Your task to perform on an android device: Go to settings Image 0: 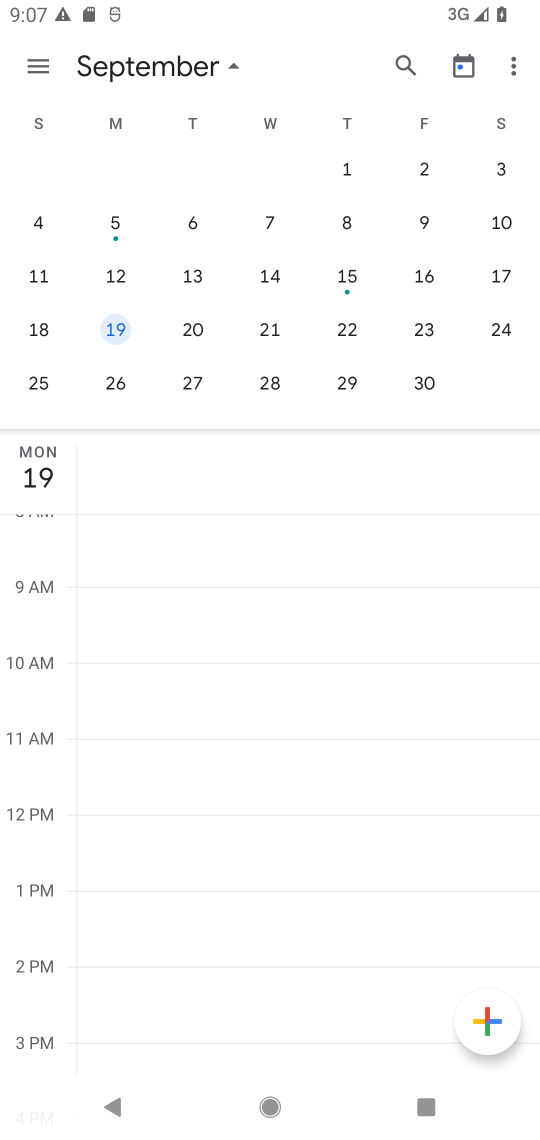
Step 0: press home button
Your task to perform on an android device: Go to settings Image 1: 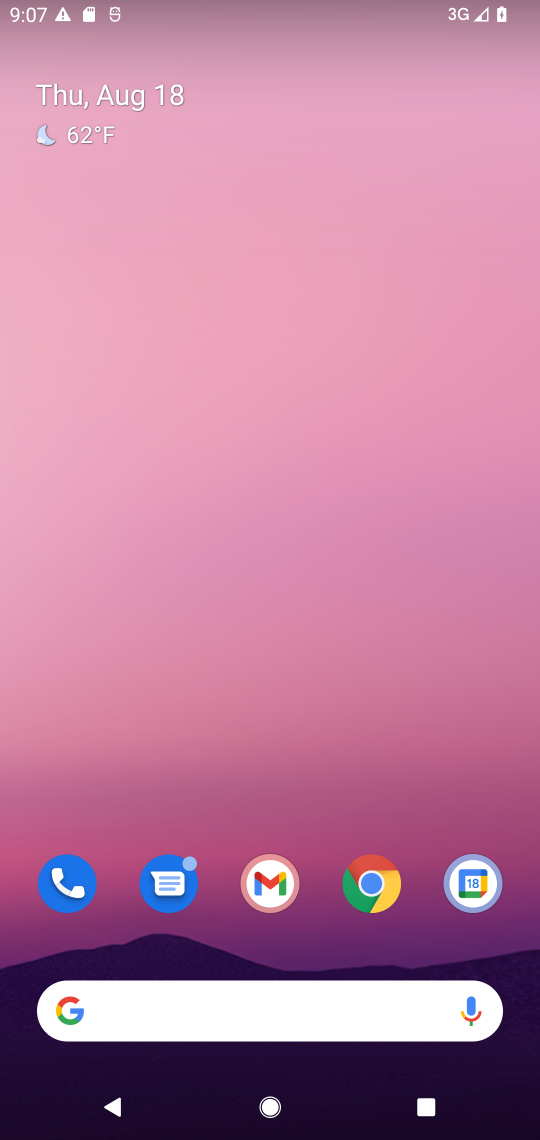
Step 1: drag from (64, 1075) to (301, 325)
Your task to perform on an android device: Go to settings Image 2: 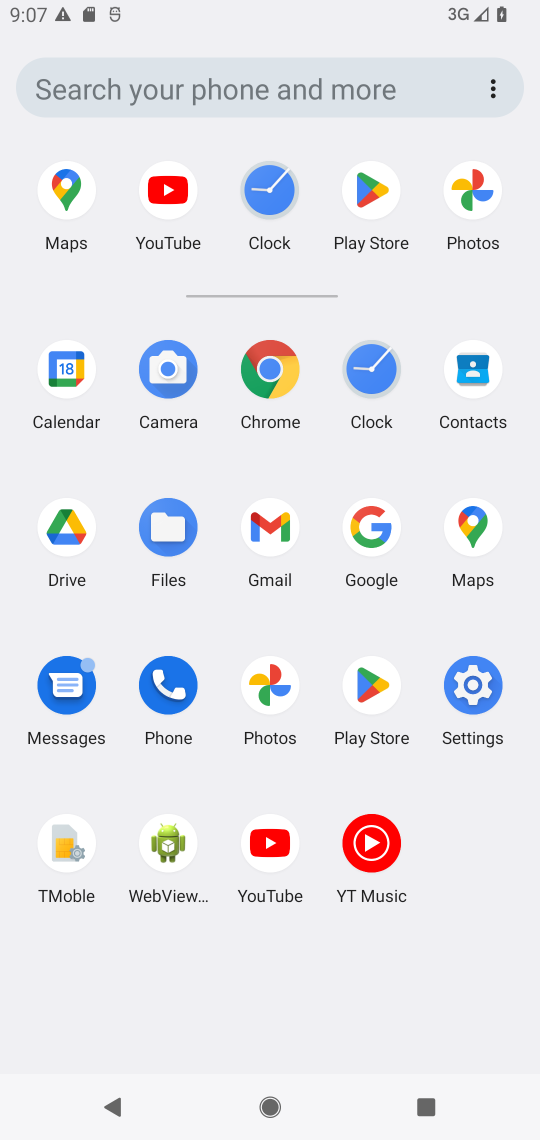
Step 2: click (474, 686)
Your task to perform on an android device: Go to settings Image 3: 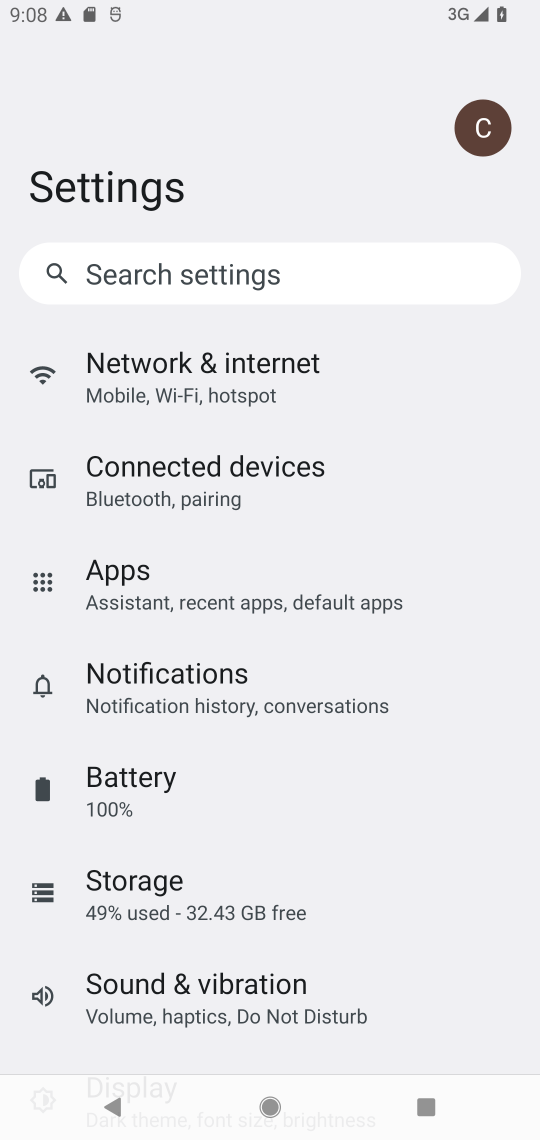
Step 3: task complete